Your task to perform on an android device: star an email in the gmail app Image 0: 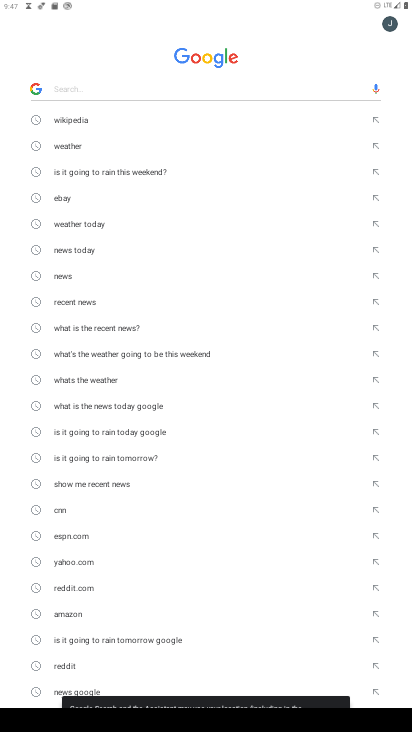
Step 0: press home button
Your task to perform on an android device: star an email in the gmail app Image 1: 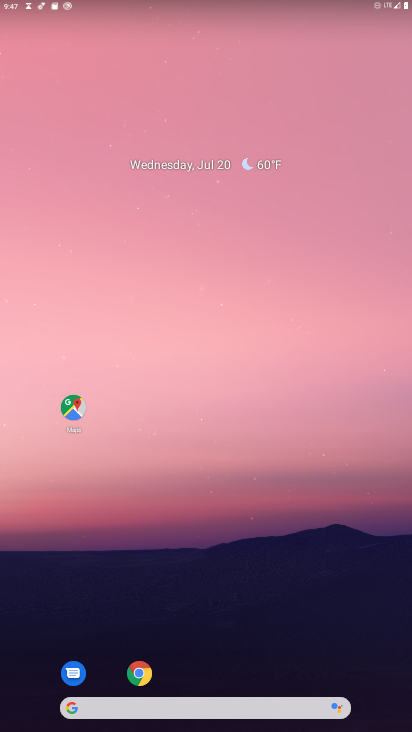
Step 1: click (151, 79)
Your task to perform on an android device: star an email in the gmail app Image 2: 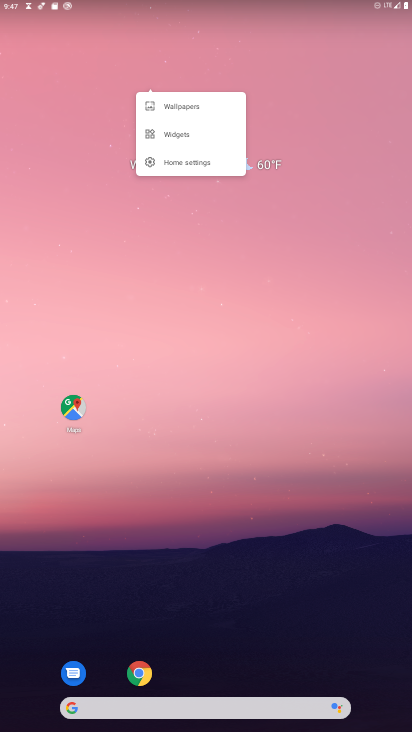
Step 2: click (213, 622)
Your task to perform on an android device: star an email in the gmail app Image 3: 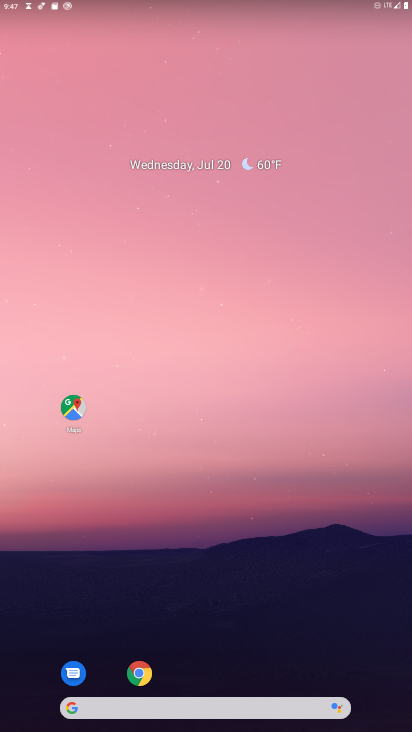
Step 3: drag from (199, 639) to (180, 186)
Your task to perform on an android device: star an email in the gmail app Image 4: 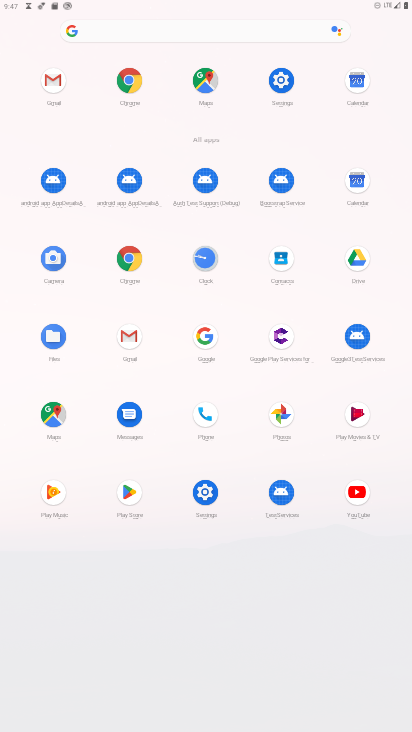
Step 4: click (50, 94)
Your task to perform on an android device: star an email in the gmail app Image 5: 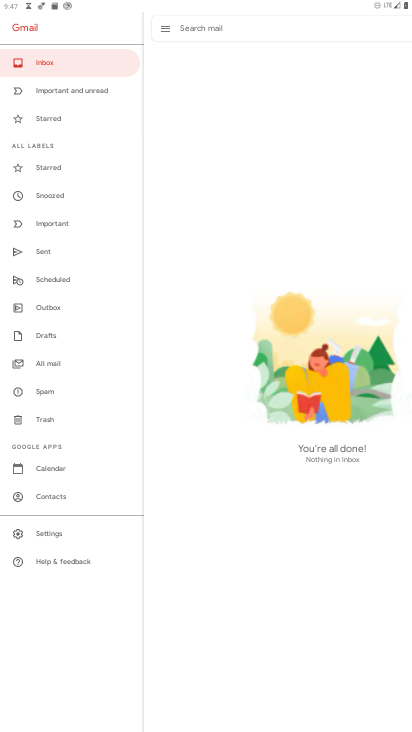
Step 5: drag from (54, 463) to (40, 357)
Your task to perform on an android device: star an email in the gmail app Image 6: 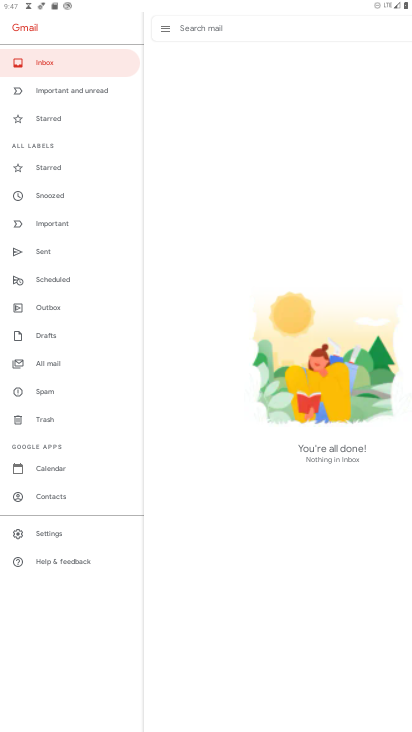
Step 6: click (43, 362)
Your task to perform on an android device: star an email in the gmail app Image 7: 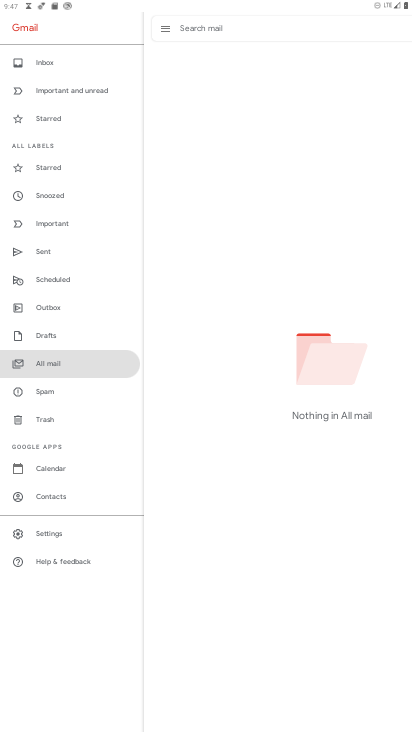
Step 7: task complete